Your task to perform on an android device: What's the weather going to be tomorrow? Image 0: 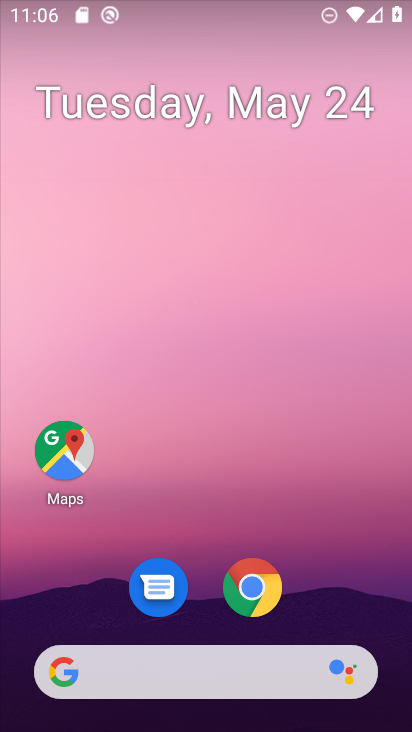
Step 0: press home button
Your task to perform on an android device: What's the weather going to be tomorrow? Image 1: 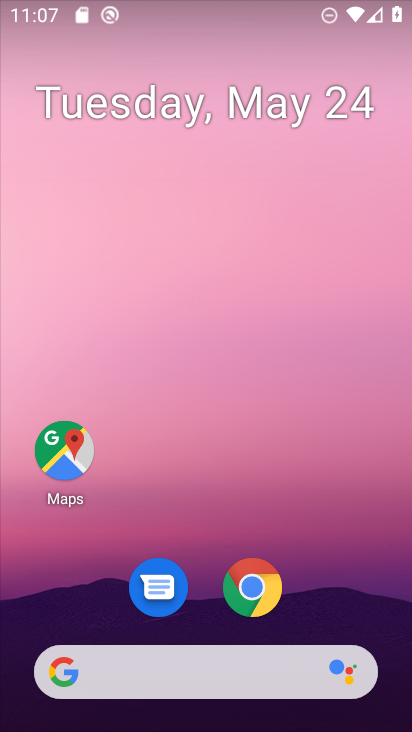
Step 1: click (246, 585)
Your task to perform on an android device: What's the weather going to be tomorrow? Image 2: 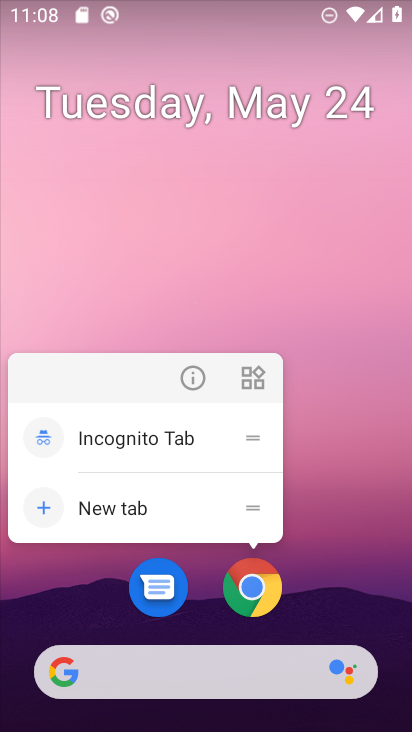
Step 2: click (242, 592)
Your task to perform on an android device: What's the weather going to be tomorrow? Image 3: 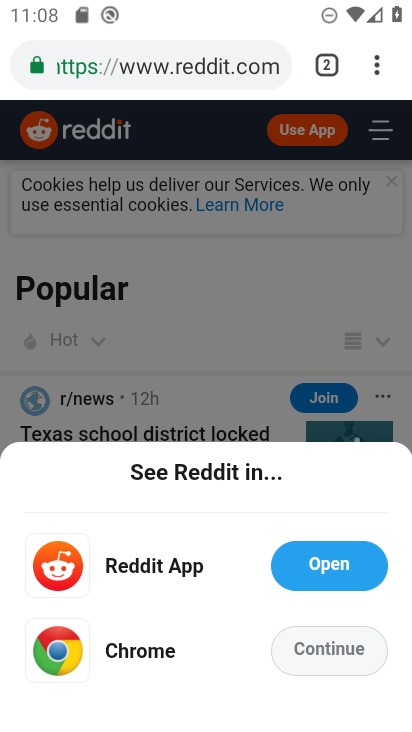
Step 3: click (168, 48)
Your task to perform on an android device: What's the weather going to be tomorrow? Image 4: 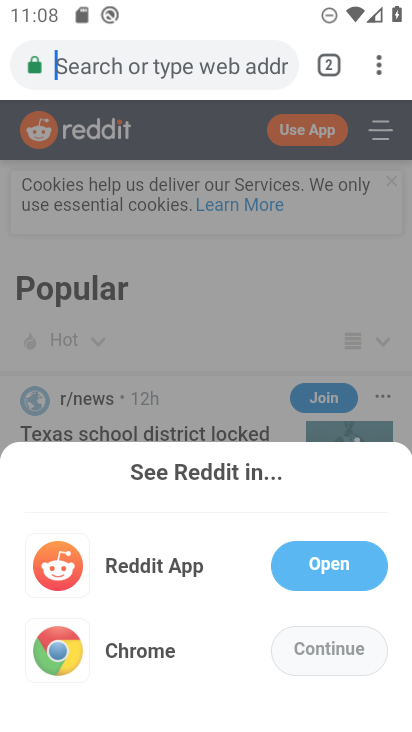
Step 4: click (168, 48)
Your task to perform on an android device: What's the weather going to be tomorrow? Image 5: 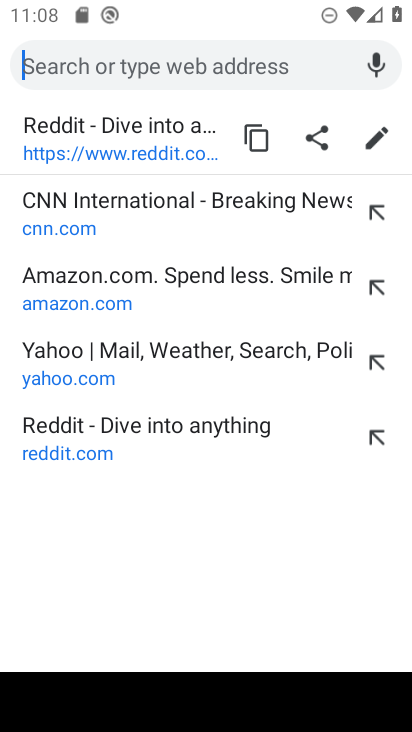
Step 5: type "What's the weather going to be tomorrow?"
Your task to perform on an android device: What's the weather going to be tomorrow? Image 6: 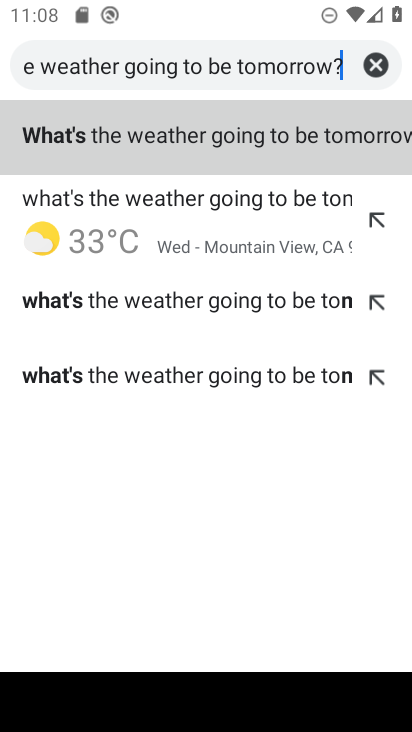
Step 6: click (156, 151)
Your task to perform on an android device: What's the weather going to be tomorrow? Image 7: 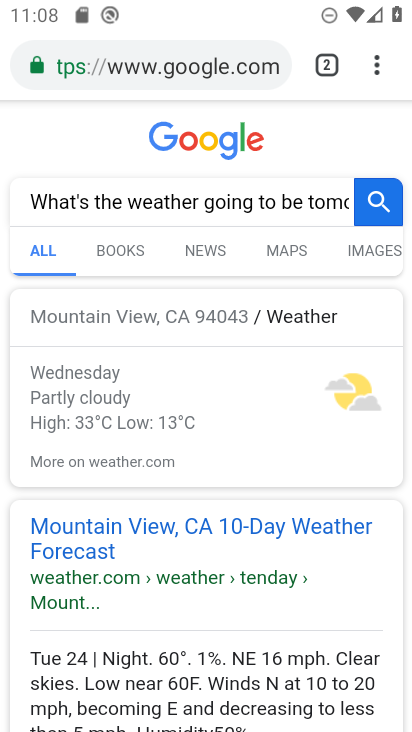
Step 7: task complete